Your task to perform on an android device: toggle notification dots Image 0: 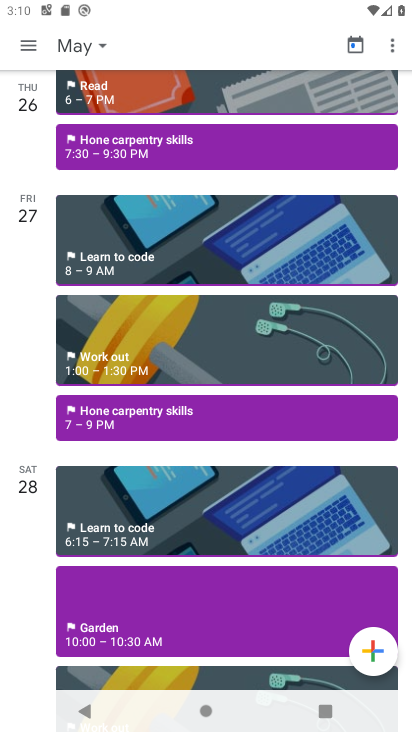
Step 0: press home button
Your task to perform on an android device: toggle notification dots Image 1: 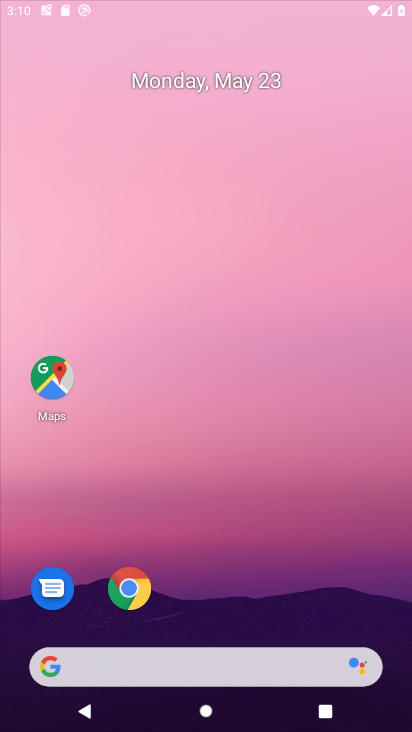
Step 1: drag from (182, 564) to (243, 57)
Your task to perform on an android device: toggle notification dots Image 2: 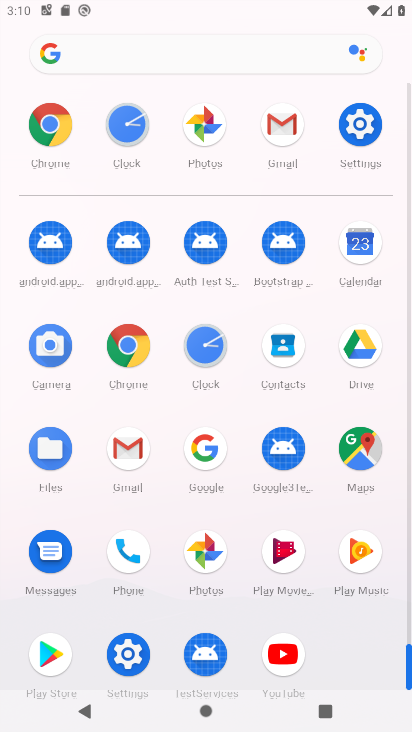
Step 2: click (367, 108)
Your task to perform on an android device: toggle notification dots Image 3: 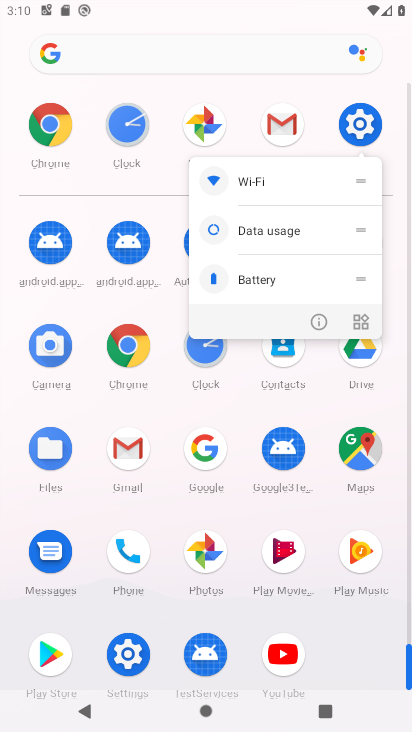
Step 3: click (306, 322)
Your task to perform on an android device: toggle notification dots Image 4: 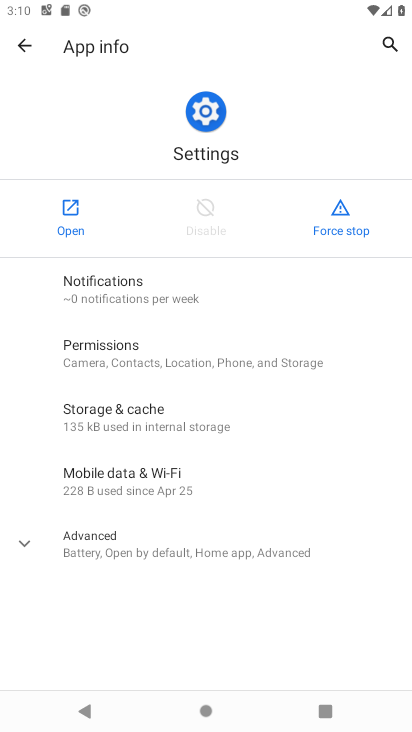
Step 4: click (70, 207)
Your task to perform on an android device: toggle notification dots Image 5: 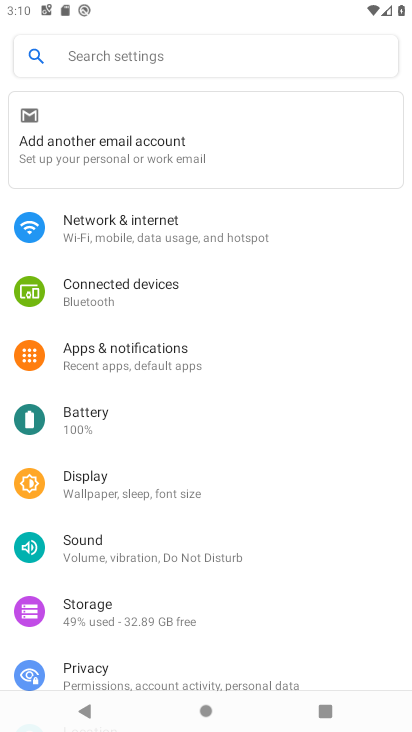
Step 5: click (151, 357)
Your task to perform on an android device: toggle notification dots Image 6: 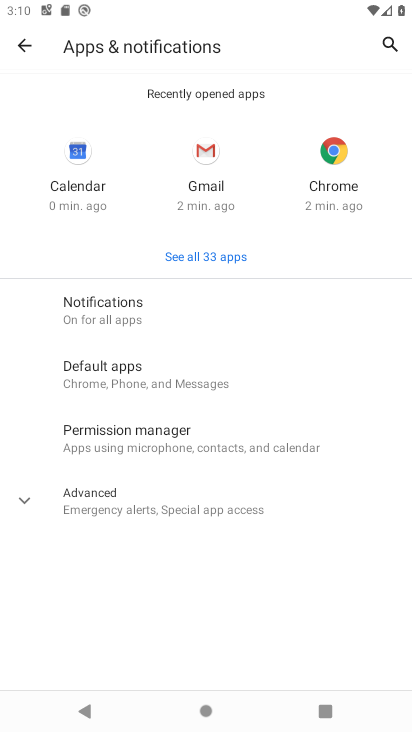
Step 6: click (181, 308)
Your task to perform on an android device: toggle notification dots Image 7: 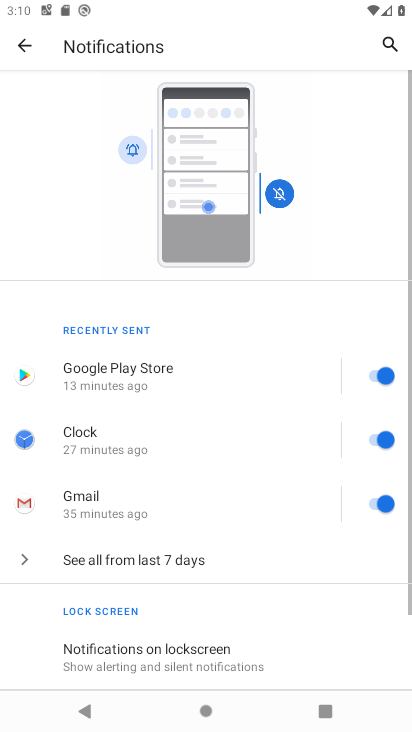
Step 7: drag from (200, 583) to (292, 80)
Your task to perform on an android device: toggle notification dots Image 8: 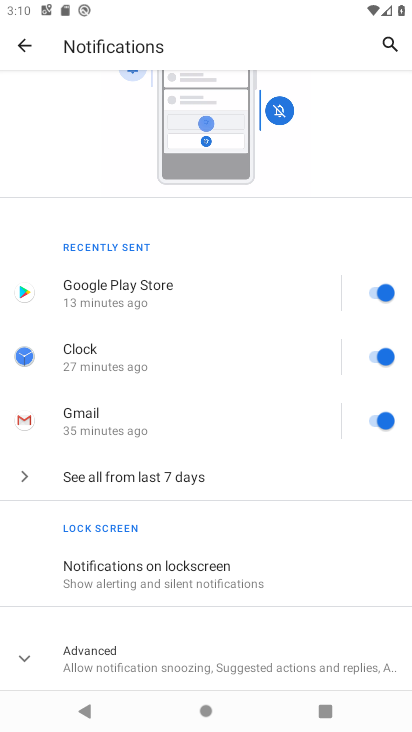
Step 8: click (188, 658)
Your task to perform on an android device: toggle notification dots Image 9: 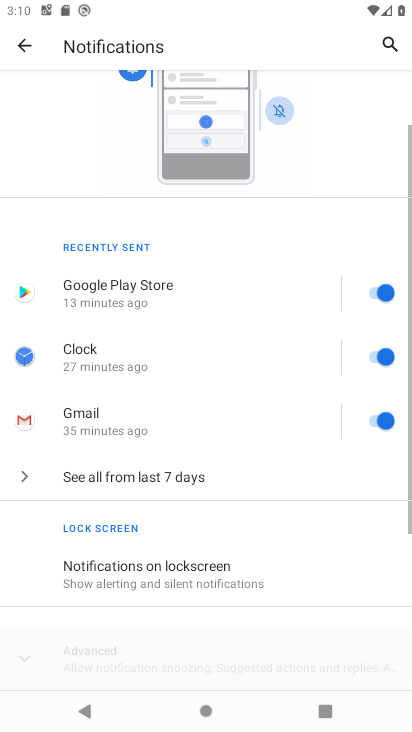
Step 9: drag from (243, 617) to (313, 73)
Your task to perform on an android device: toggle notification dots Image 10: 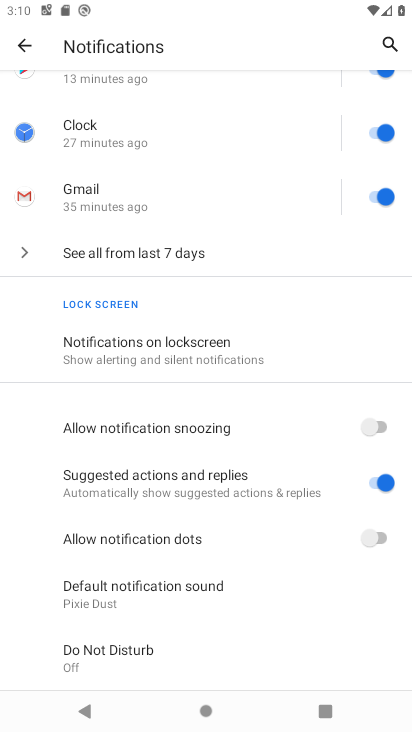
Step 10: click (369, 532)
Your task to perform on an android device: toggle notification dots Image 11: 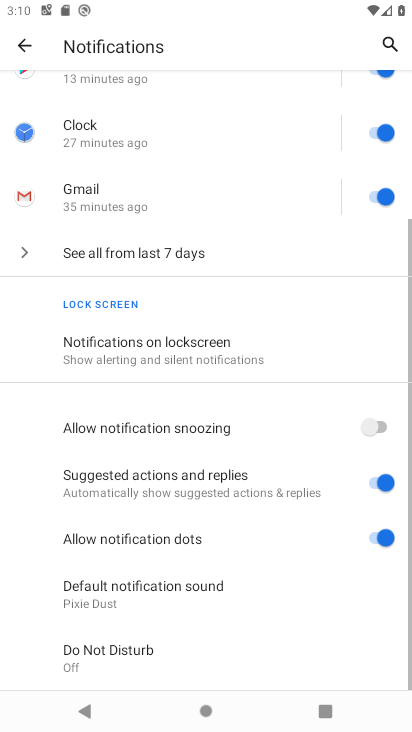
Step 11: task complete